Your task to perform on an android device: Is it going to rain today? Image 0: 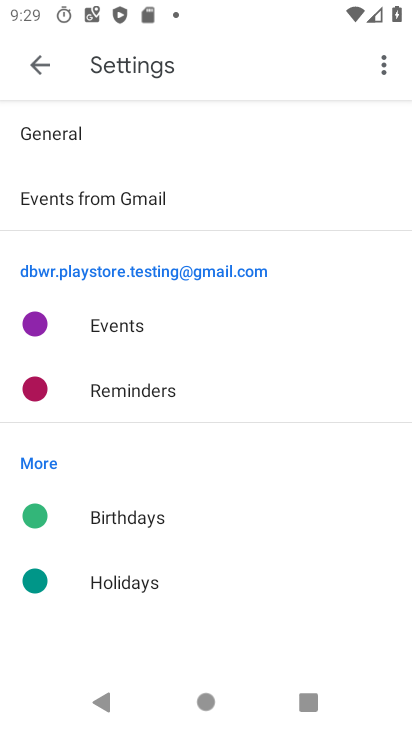
Step 0: press home button
Your task to perform on an android device: Is it going to rain today? Image 1: 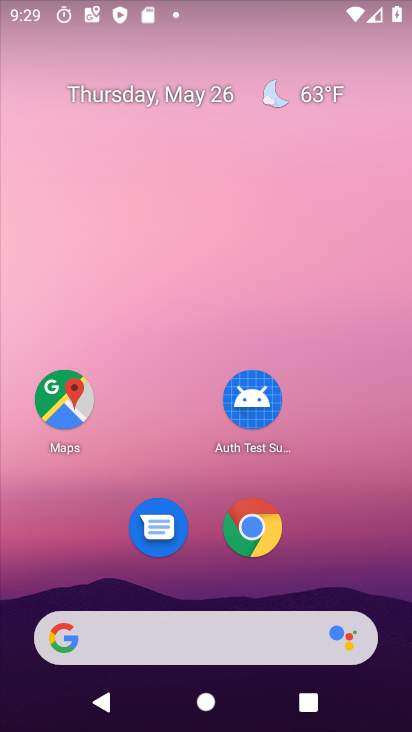
Step 1: drag from (345, 530) to (351, 3)
Your task to perform on an android device: Is it going to rain today? Image 2: 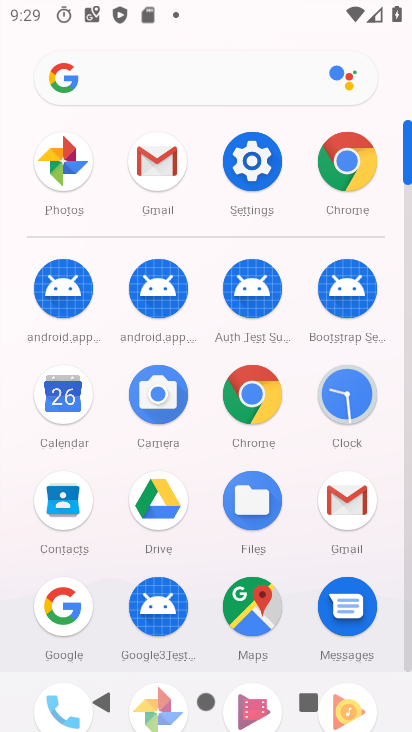
Step 2: click (52, 73)
Your task to perform on an android device: Is it going to rain today? Image 3: 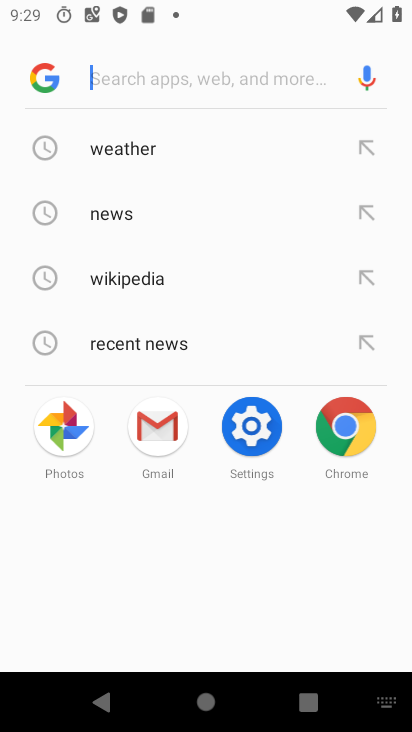
Step 3: click (42, 78)
Your task to perform on an android device: Is it going to rain today? Image 4: 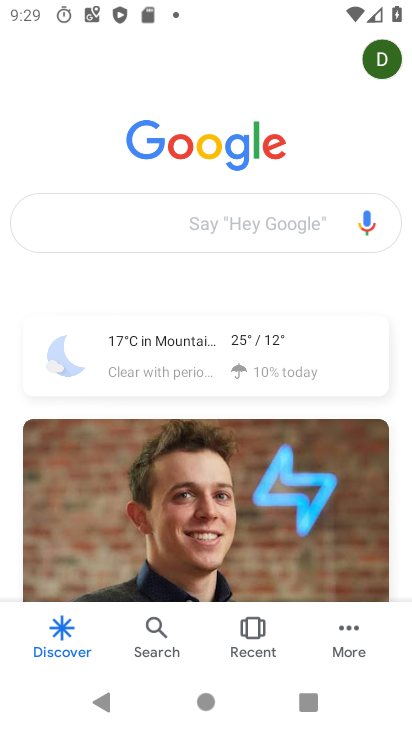
Step 4: click (297, 386)
Your task to perform on an android device: Is it going to rain today? Image 5: 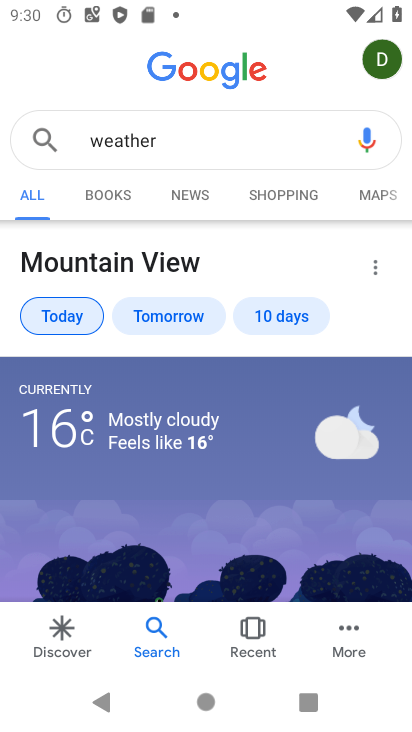
Step 5: task complete